Your task to perform on an android device: Search for Italian restaurants on Maps Image 0: 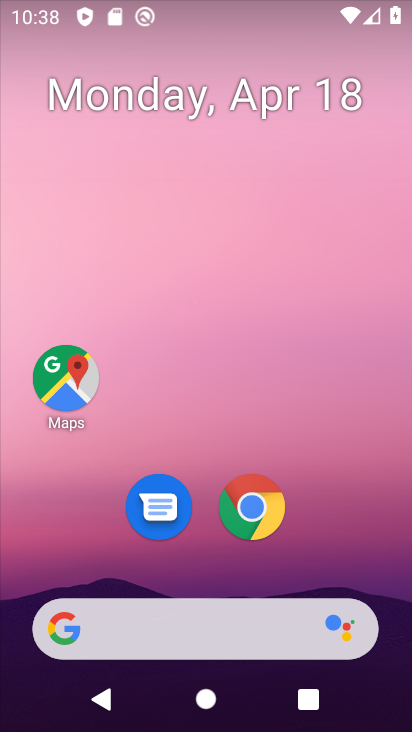
Step 0: click (44, 378)
Your task to perform on an android device: Search for Italian restaurants on Maps Image 1: 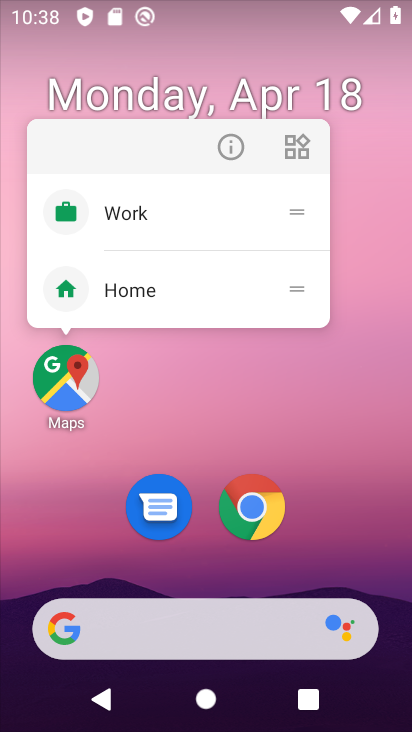
Step 1: click (44, 378)
Your task to perform on an android device: Search for Italian restaurants on Maps Image 2: 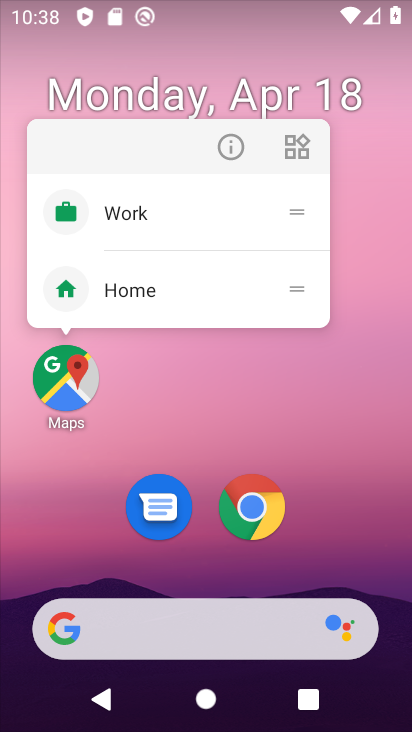
Step 2: click (44, 377)
Your task to perform on an android device: Search for Italian restaurants on Maps Image 3: 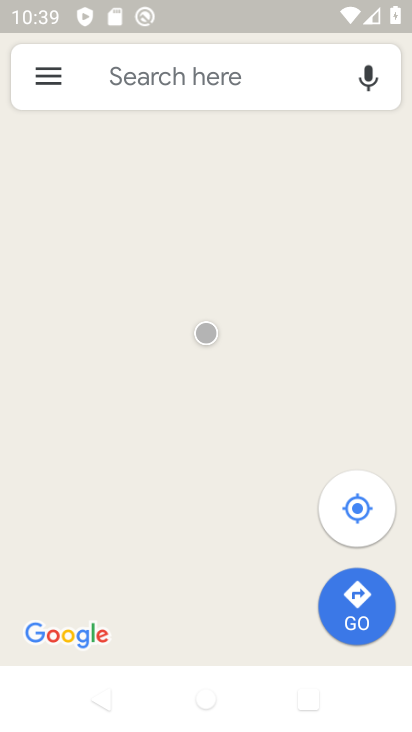
Step 3: click (110, 81)
Your task to perform on an android device: Search for Italian restaurants on Maps Image 4: 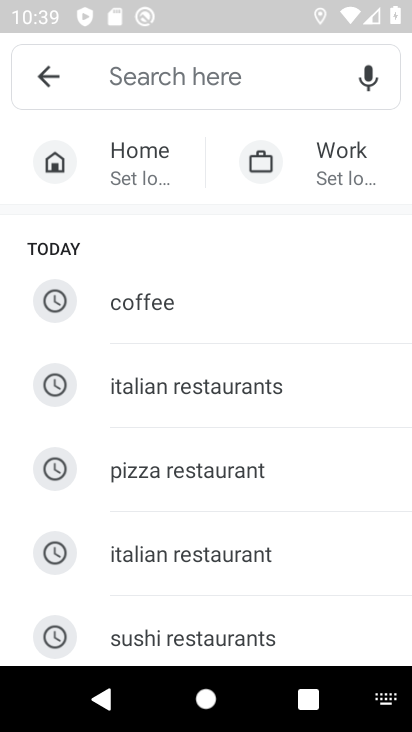
Step 4: type "italian restaurants"
Your task to perform on an android device: Search for Italian restaurants on Maps Image 5: 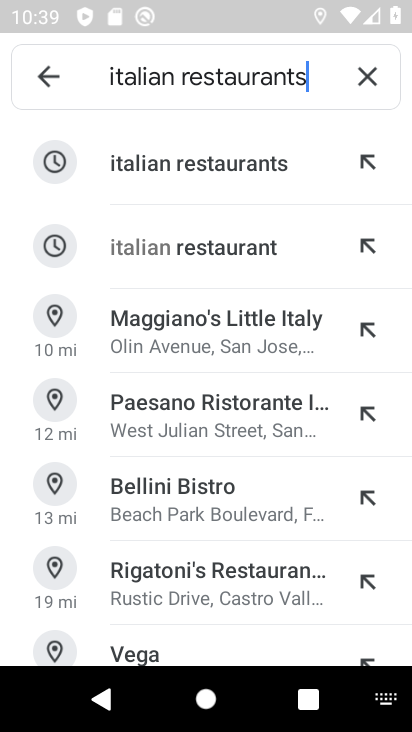
Step 5: click (193, 181)
Your task to perform on an android device: Search for Italian restaurants on Maps Image 6: 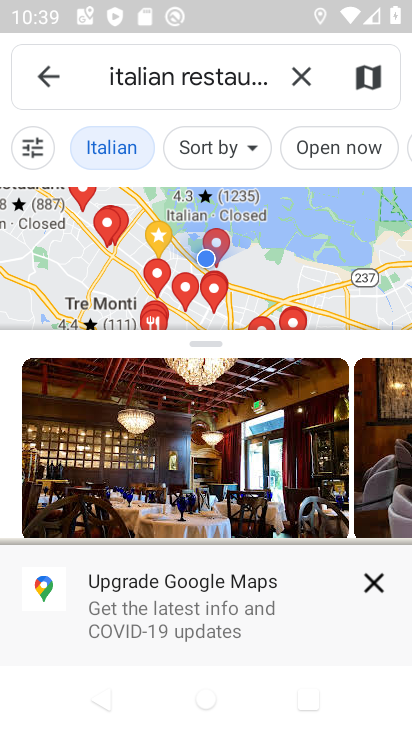
Step 6: task complete